Your task to perform on an android device: open wifi settings Image 0: 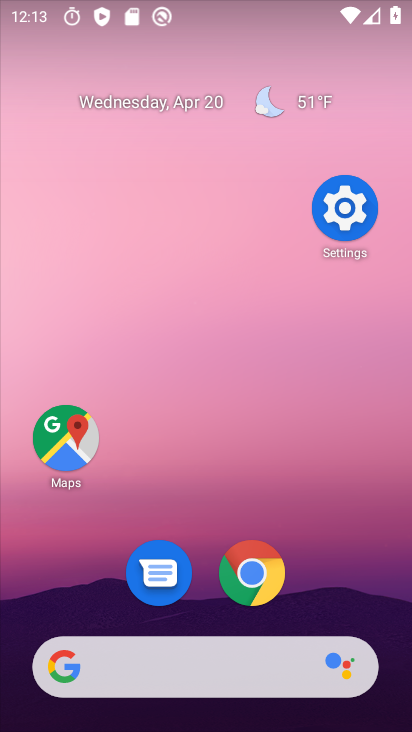
Step 0: click (250, 591)
Your task to perform on an android device: open wifi settings Image 1: 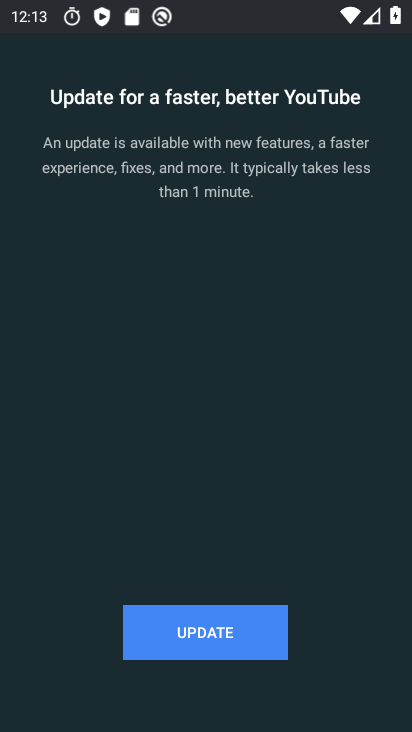
Step 1: press home button
Your task to perform on an android device: open wifi settings Image 2: 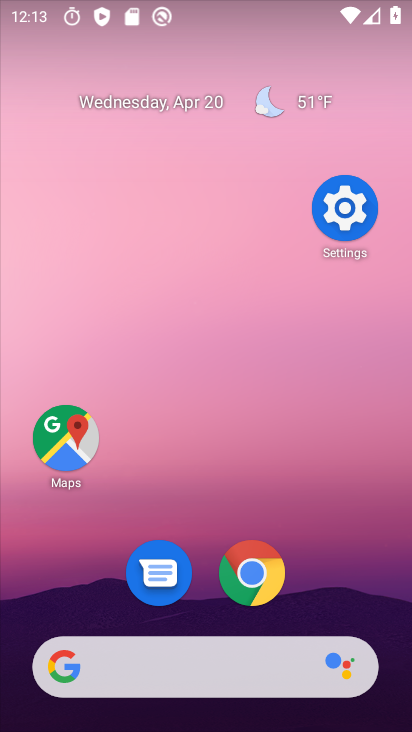
Step 2: click (344, 220)
Your task to perform on an android device: open wifi settings Image 3: 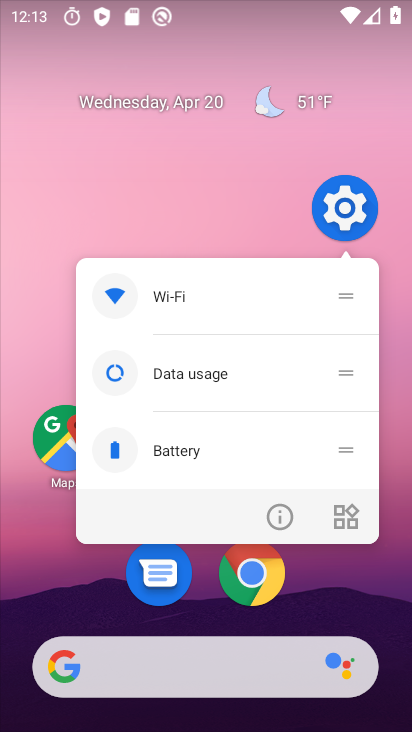
Step 3: click (186, 298)
Your task to perform on an android device: open wifi settings Image 4: 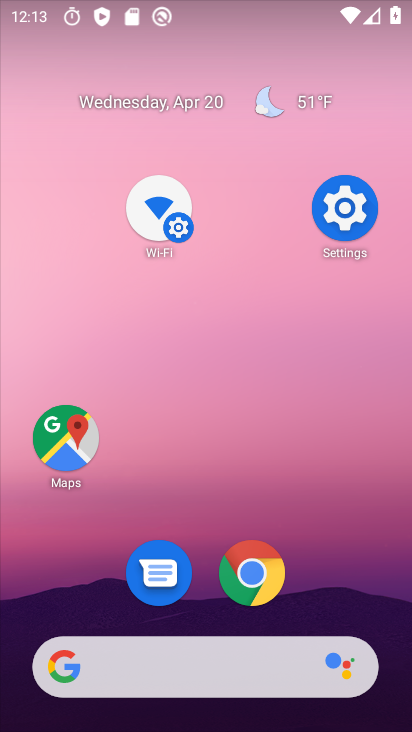
Step 4: click (341, 227)
Your task to perform on an android device: open wifi settings Image 5: 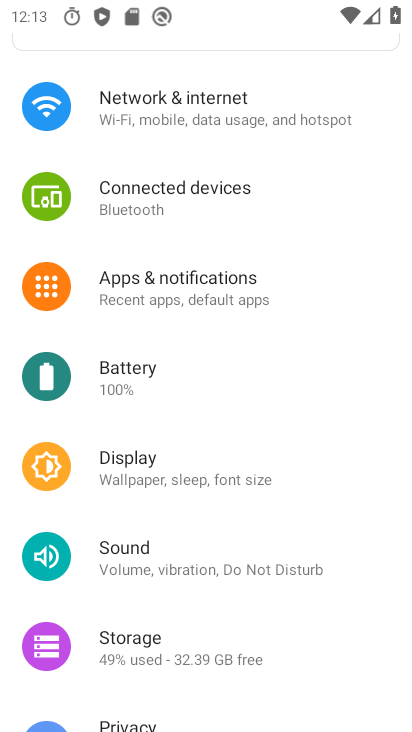
Step 5: click (251, 127)
Your task to perform on an android device: open wifi settings Image 6: 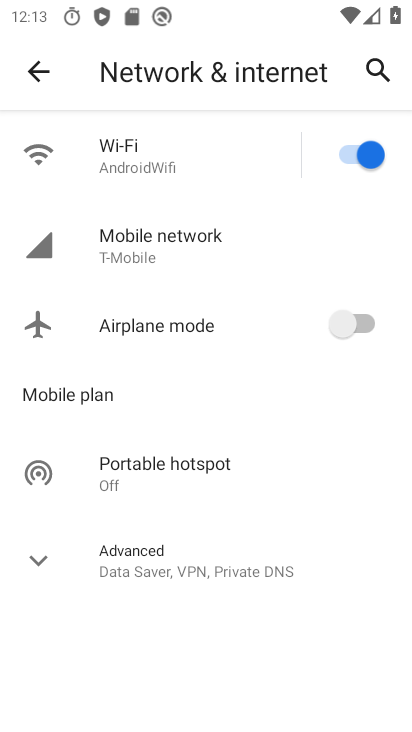
Step 6: click (176, 157)
Your task to perform on an android device: open wifi settings Image 7: 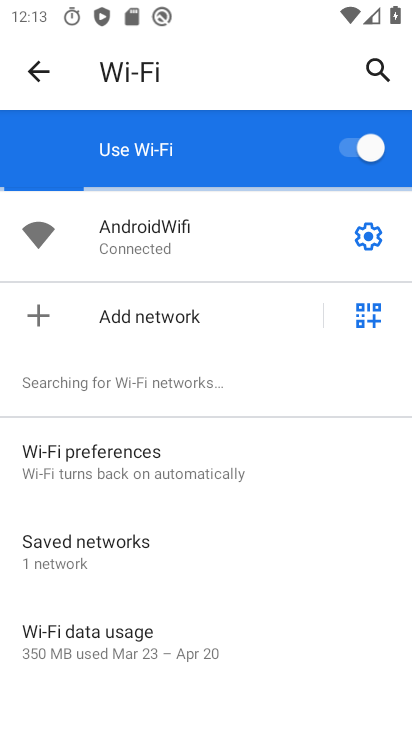
Step 7: task complete